Your task to perform on an android device: delete the emails in spam in the gmail app Image 0: 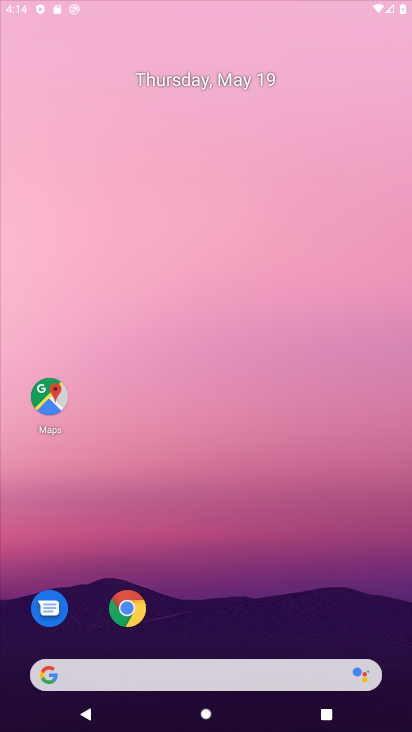
Step 0: click (249, 84)
Your task to perform on an android device: delete the emails in spam in the gmail app Image 1: 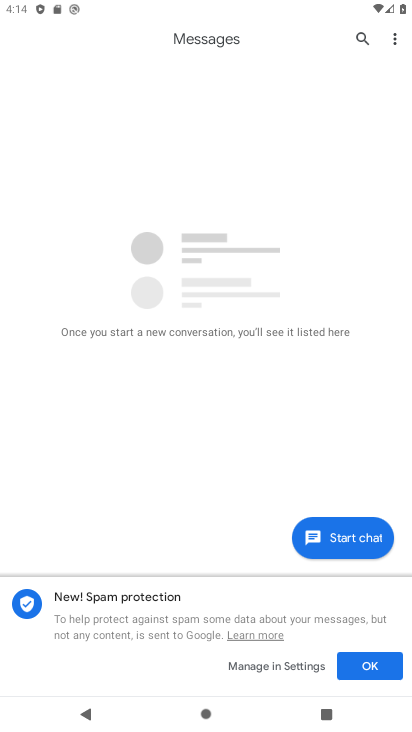
Step 1: drag from (276, 519) to (242, 206)
Your task to perform on an android device: delete the emails in spam in the gmail app Image 2: 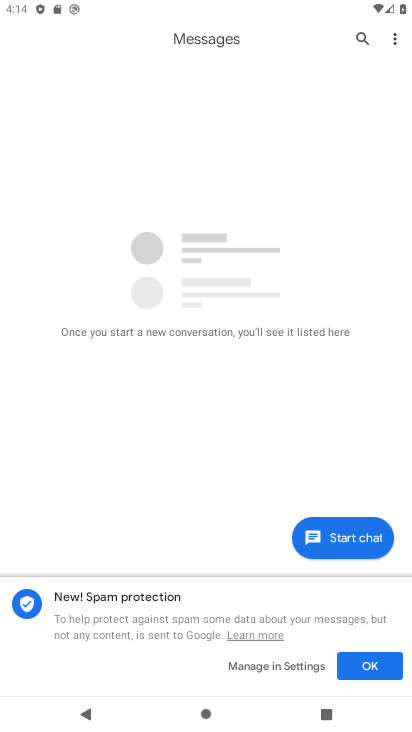
Step 2: press home button
Your task to perform on an android device: delete the emails in spam in the gmail app Image 3: 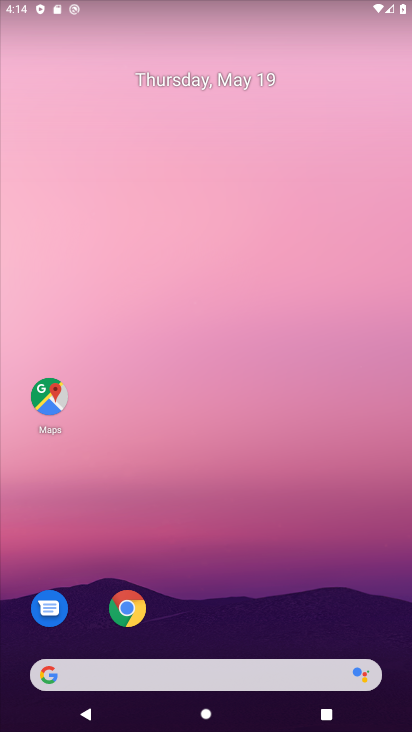
Step 3: drag from (263, 602) to (272, 105)
Your task to perform on an android device: delete the emails in spam in the gmail app Image 4: 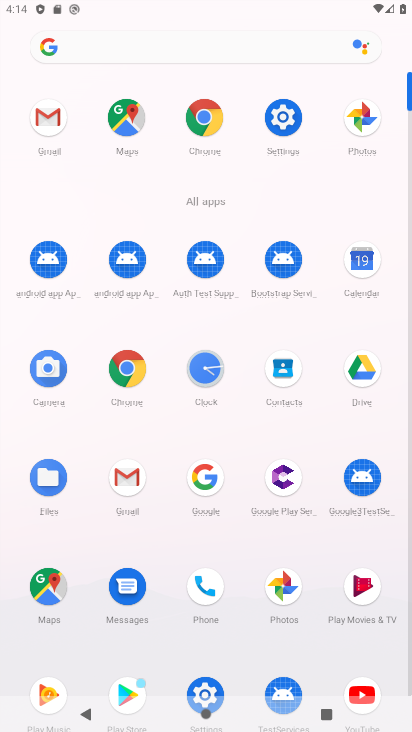
Step 4: click (44, 123)
Your task to perform on an android device: delete the emails in spam in the gmail app Image 5: 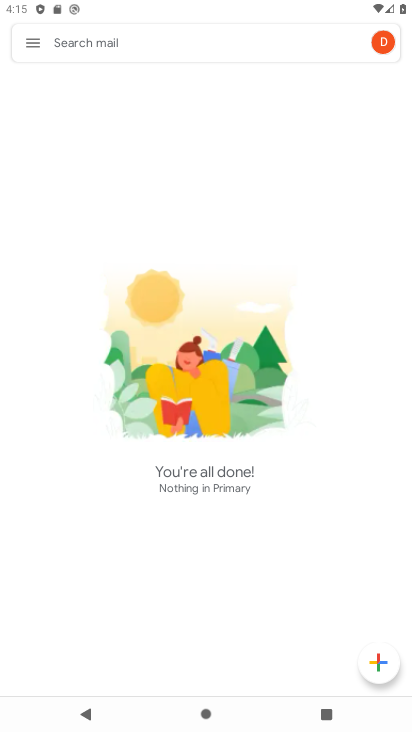
Step 5: click (32, 25)
Your task to perform on an android device: delete the emails in spam in the gmail app Image 6: 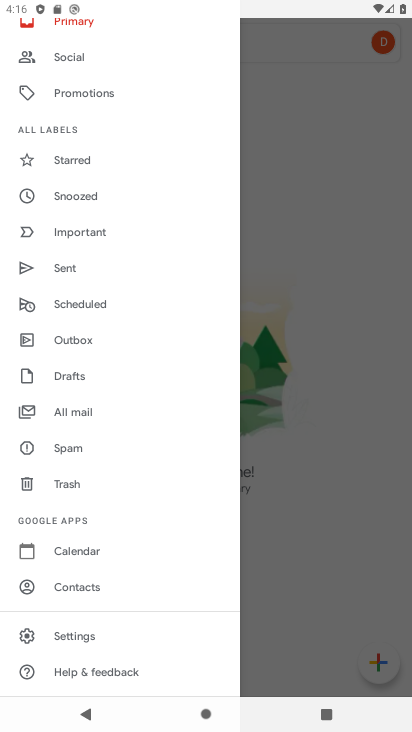
Step 6: click (71, 435)
Your task to perform on an android device: delete the emails in spam in the gmail app Image 7: 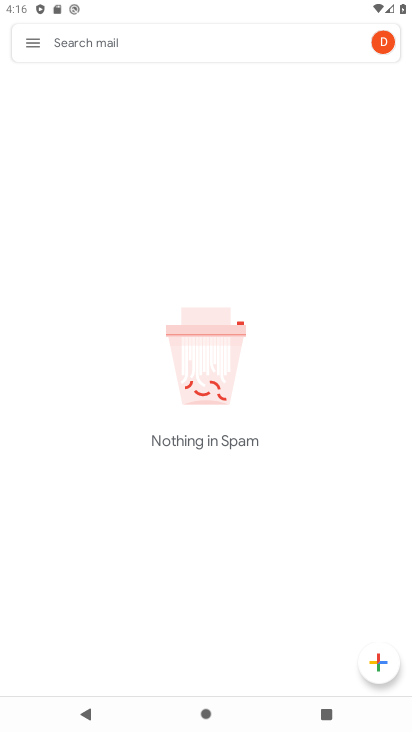
Step 7: task complete